Your task to perform on an android device: Play the last video I watched on Youtube Image 0: 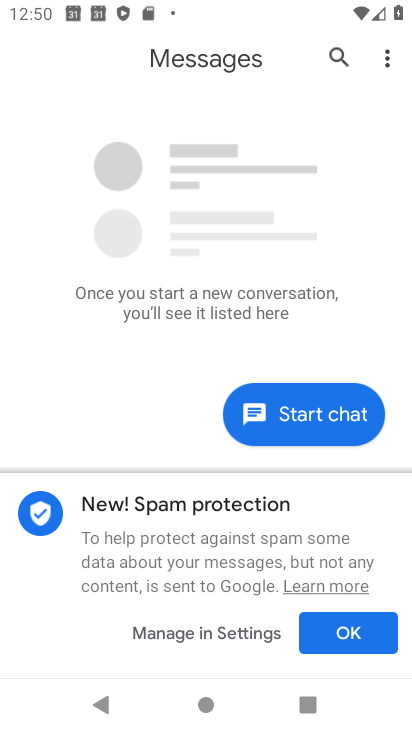
Step 0: press home button
Your task to perform on an android device: Play the last video I watched on Youtube Image 1: 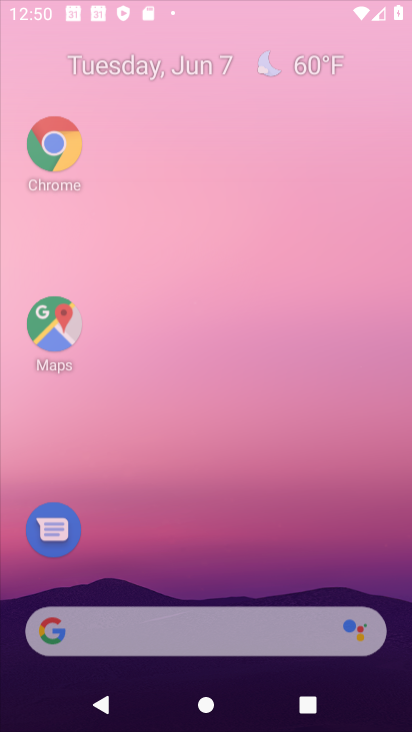
Step 1: drag from (218, 518) to (226, 9)
Your task to perform on an android device: Play the last video I watched on Youtube Image 2: 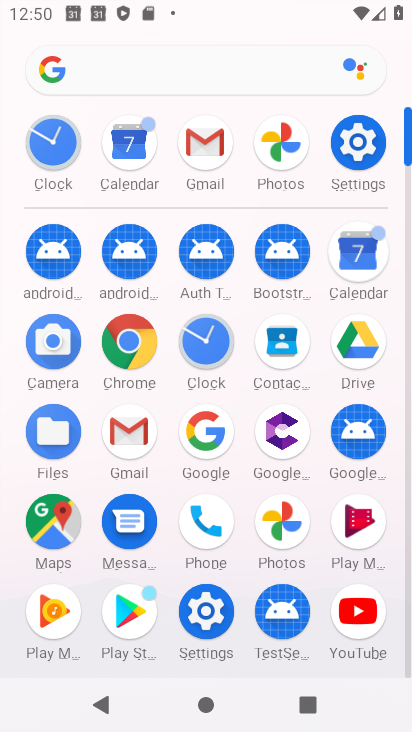
Step 2: click (358, 609)
Your task to perform on an android device: Play the last video I watched on Youtube Image 3: 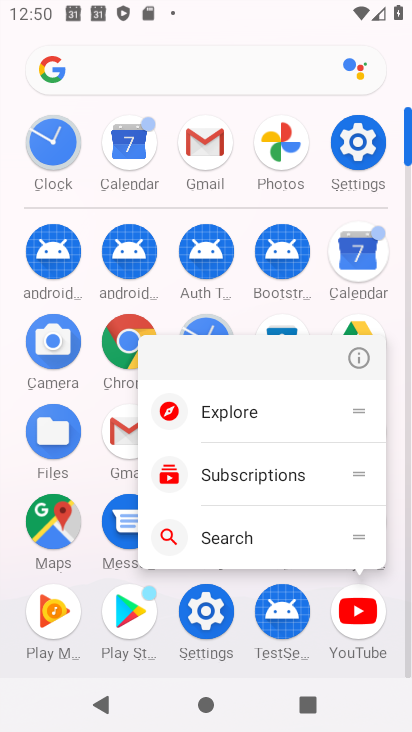
Step 3: click (360, 354)
Your task to perform on an android device: Play the last video I watched on Youtube Image 4: 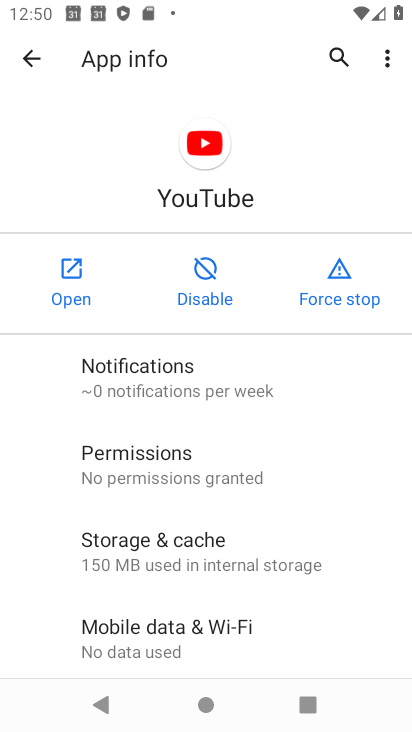
Step 4: click (88, 276)
Your task to perform on an android device: Play the last video I watched on Youtube Image 5: 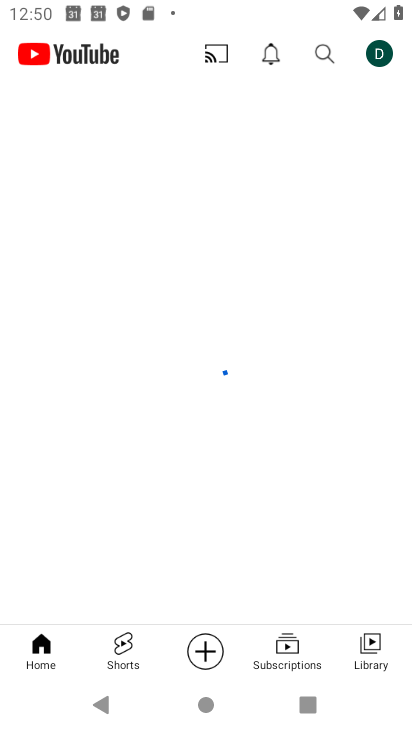
Step 5: click (370, 648)
Your task to perform on an android device: Play the last video I watched on Youtube Image 6: 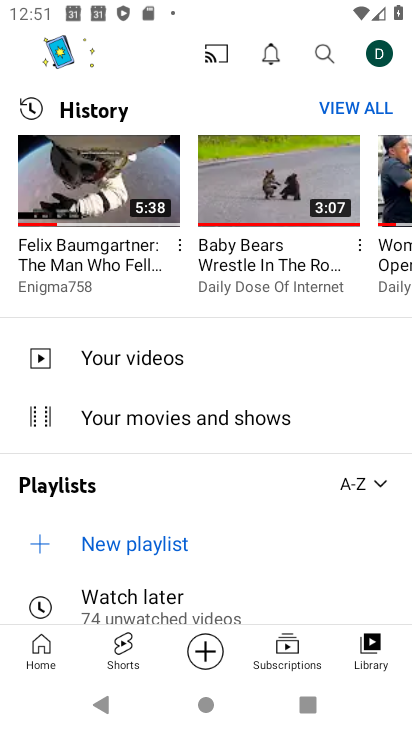
Step 6: click (367, 650)
Your task to perform on an android device: Play the last video I watched on Youtube Image 7: 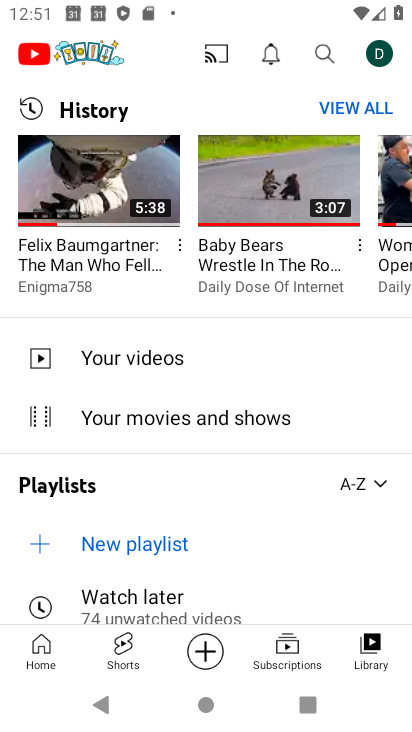
Step 7: click (96, 174)
Your task to perform on an android device: Play the last video I watched on Youtube Image 8: 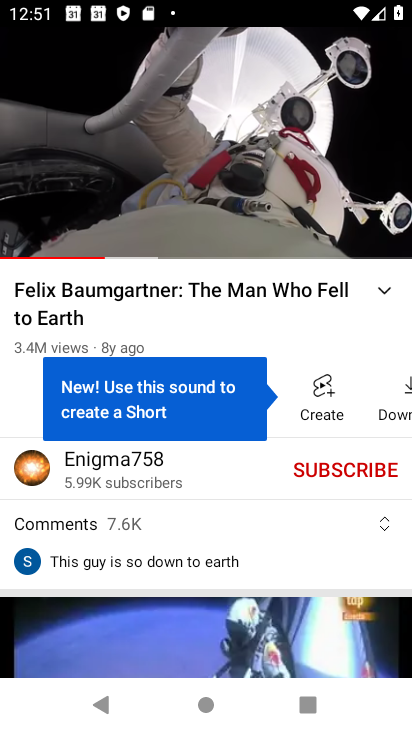
Step 8: task complete